Your task to perform on an android device: toggle airplane mode Image 0: 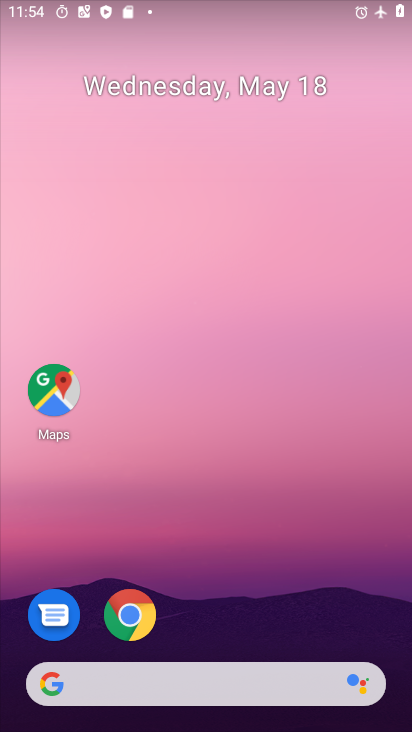
Step 0: drag from (9, 647) to (300, 164)
Your task to perform on an android device: toggle airplane mode Image 1: 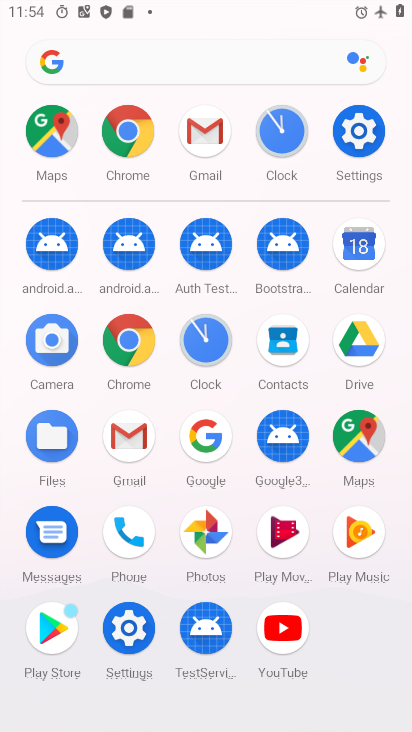
Step 1: click (358, 131)
Your task to perform on an android device: toggle airplane mode Image 2: 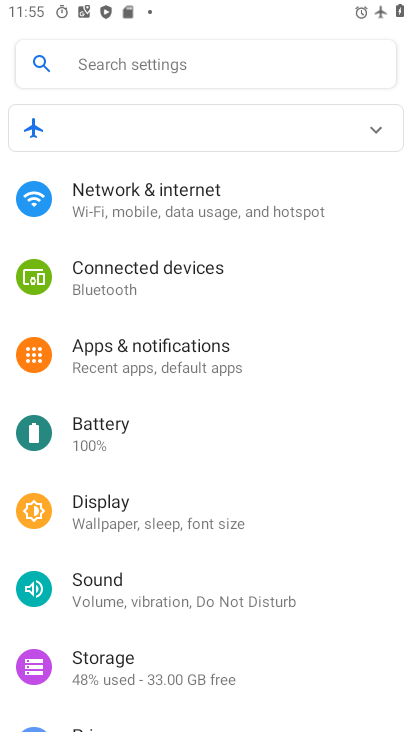
Step 2: click (158, 204)
Your task to perform on an android device: toggle airplane mode Image 3: 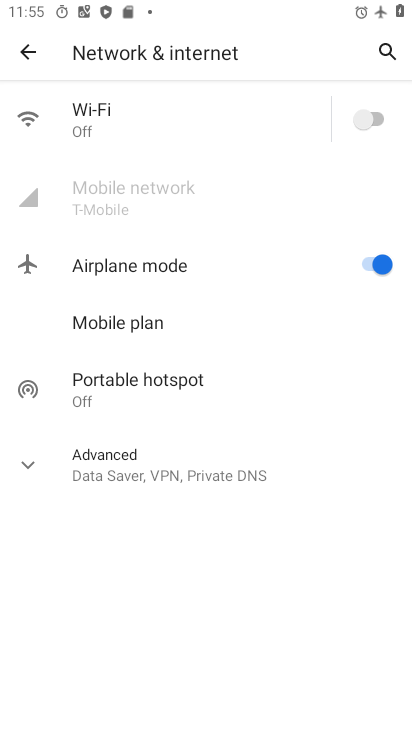
Step 3: click (381, 263)
Your task to perform on an android device: toggle airplane mode Image 4: 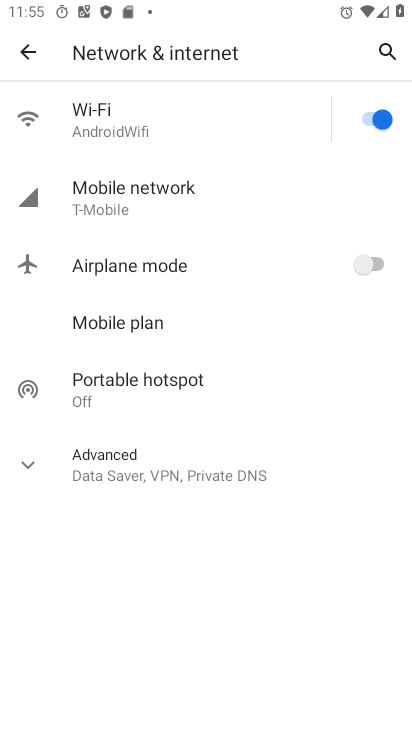
Step 4: task complete